Your task to perform on an android device: uninstall "Airtel Thanks" Image 0: 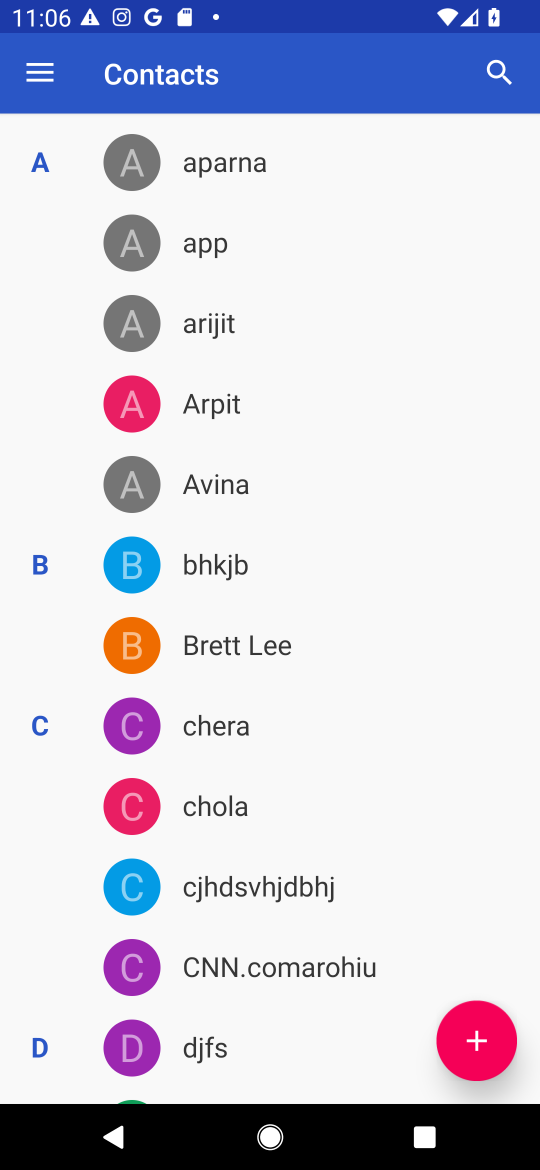
Step 0: press home button
Your task to perform on an android device: uninstall "Airtel Thanks" Image 1: 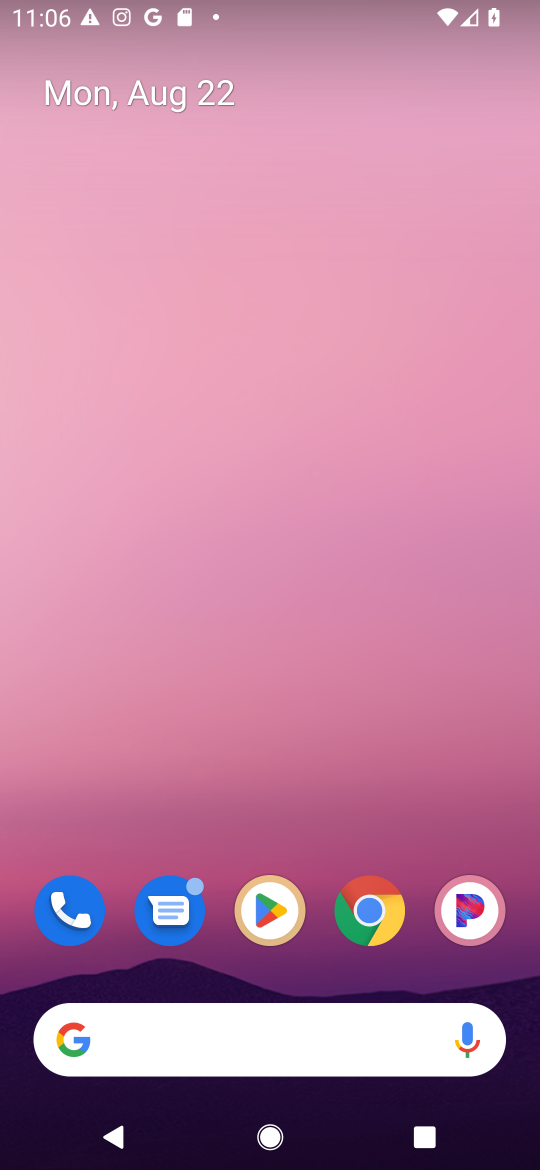
Step 1: click (270, 928)
Your task to perform on an android device: uninstall "Airtel Thanks" Image 2: 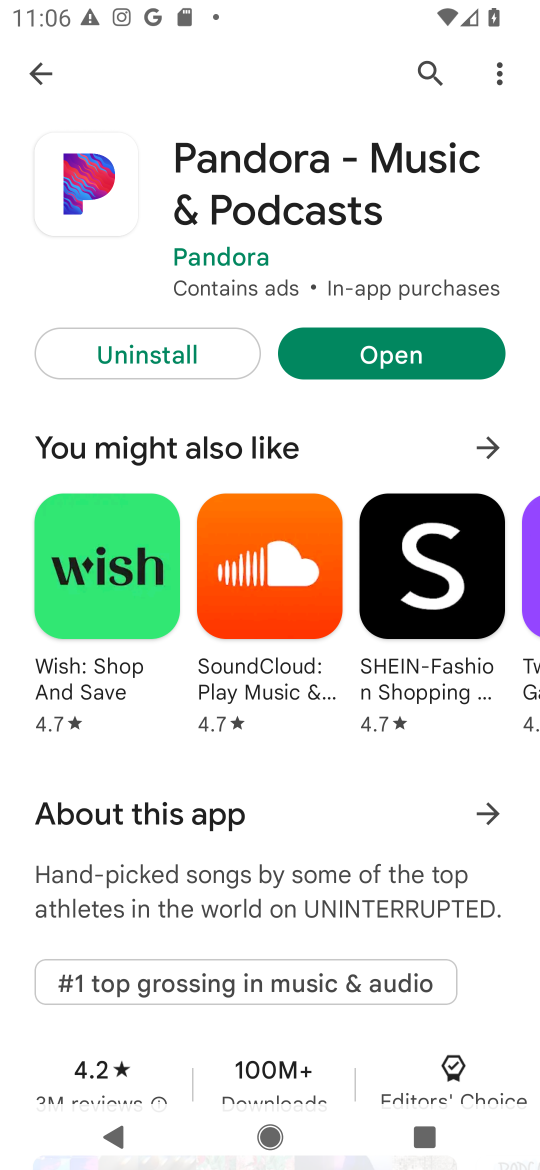
Step 2: click (433, 69)
Your task to perform on an android device: uninstall "Airtel Thanks" Image 3: 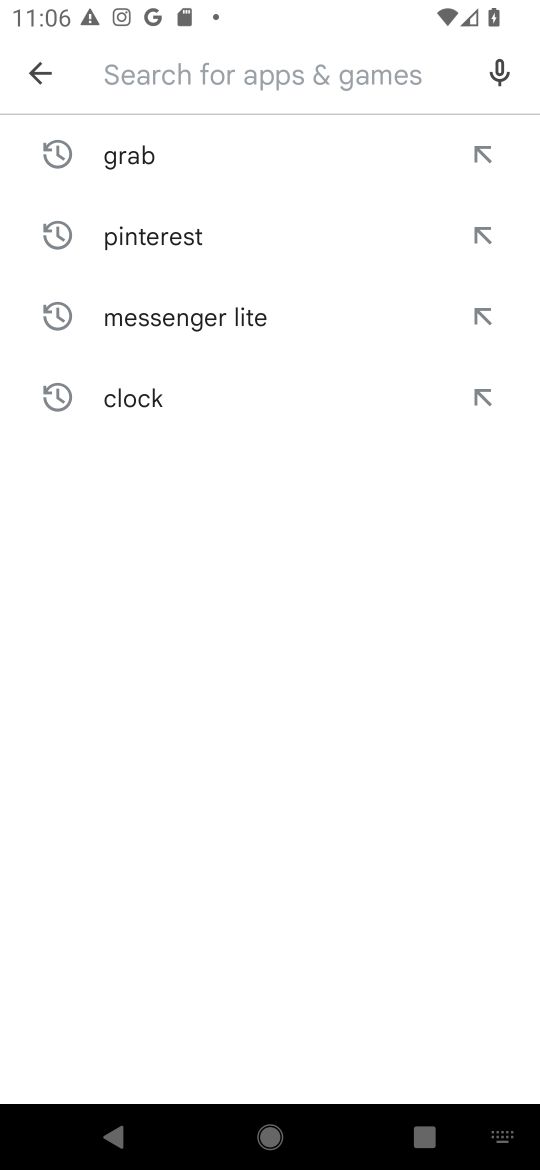
Step 3: type "Airtel Thanks"
Your task to perform on an android device: uninstall "Airtel Thanks" Image 4: 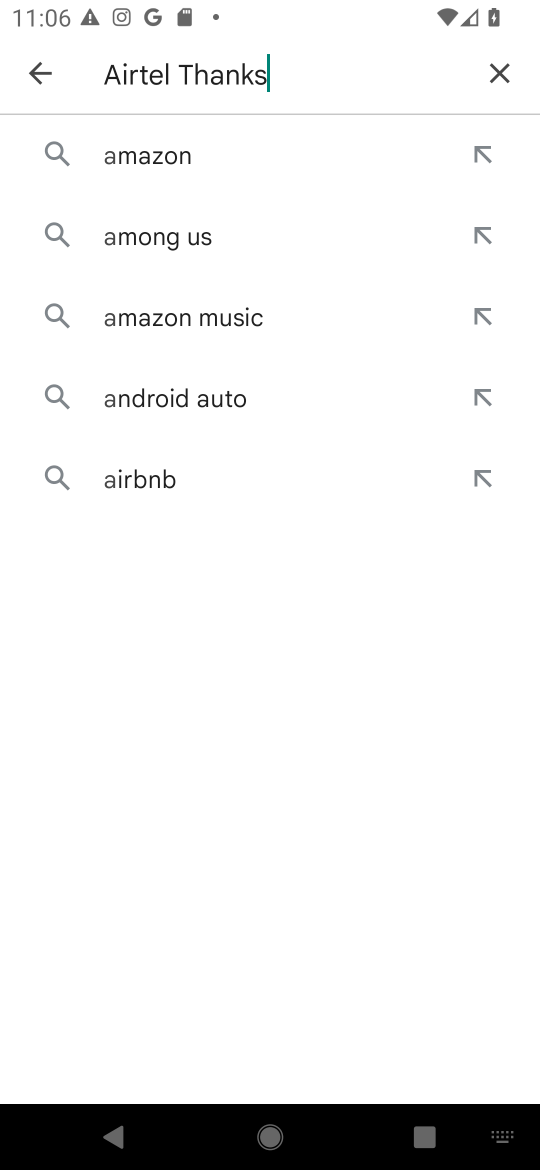
Step 4: type ""
Your task to perform on an android device: uninstall "Airtel Thanks" Image 5: 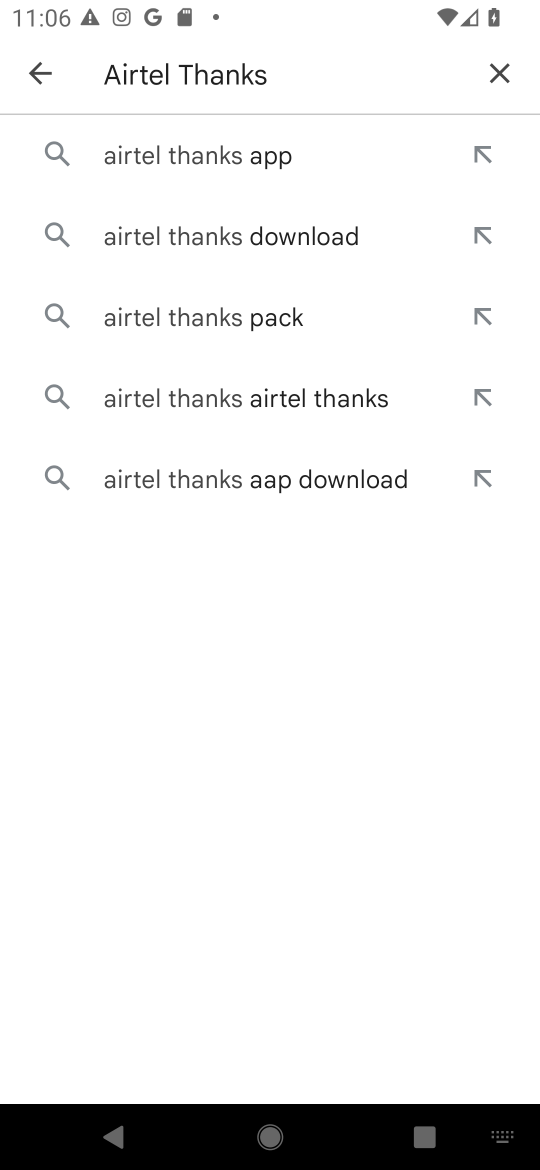
Step 5: click (148, 157)
Your task to perform on an android device: uninstall "Airtel Thanks" Image 6: 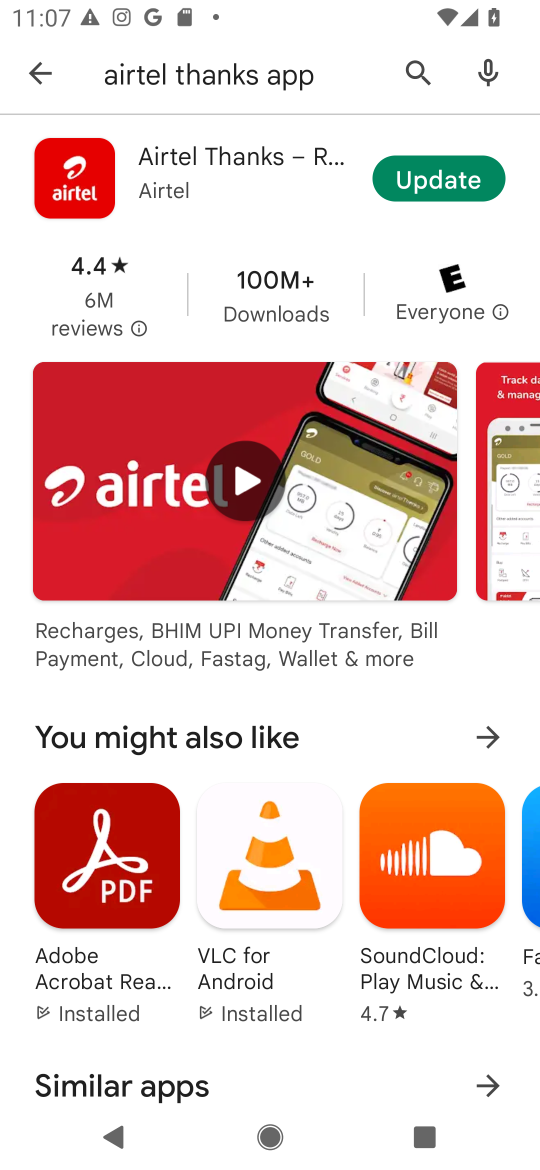
Step 6: click (193, 187)
Your task to perform on an android device: uninstall "Airtel Thanks" Image 7: 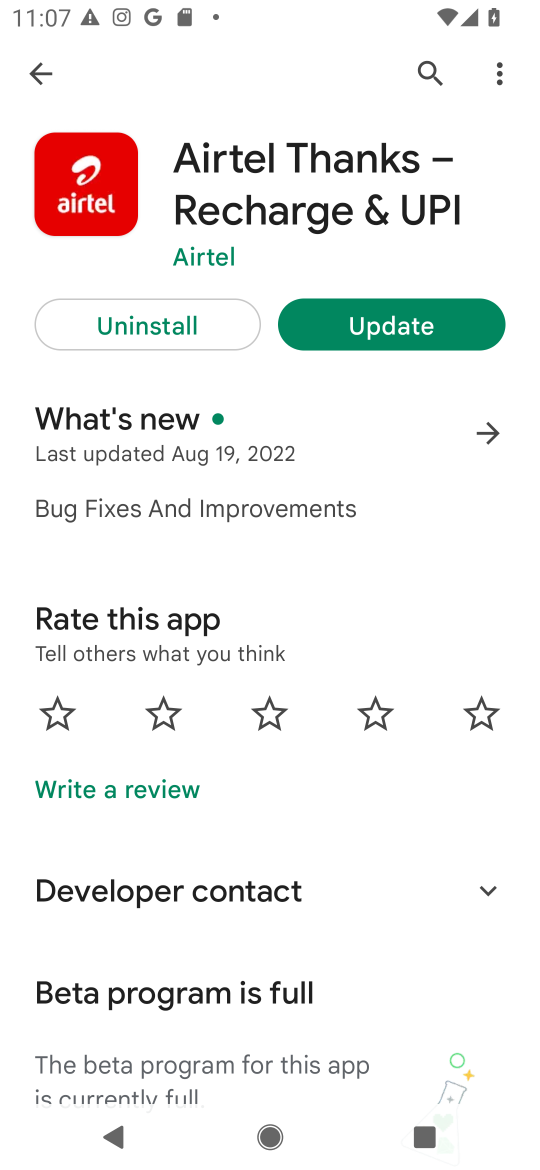
Step 7: click (173, 345)
Your task to perform on an android device: uninstall "Airtel Thanks" Image 8: 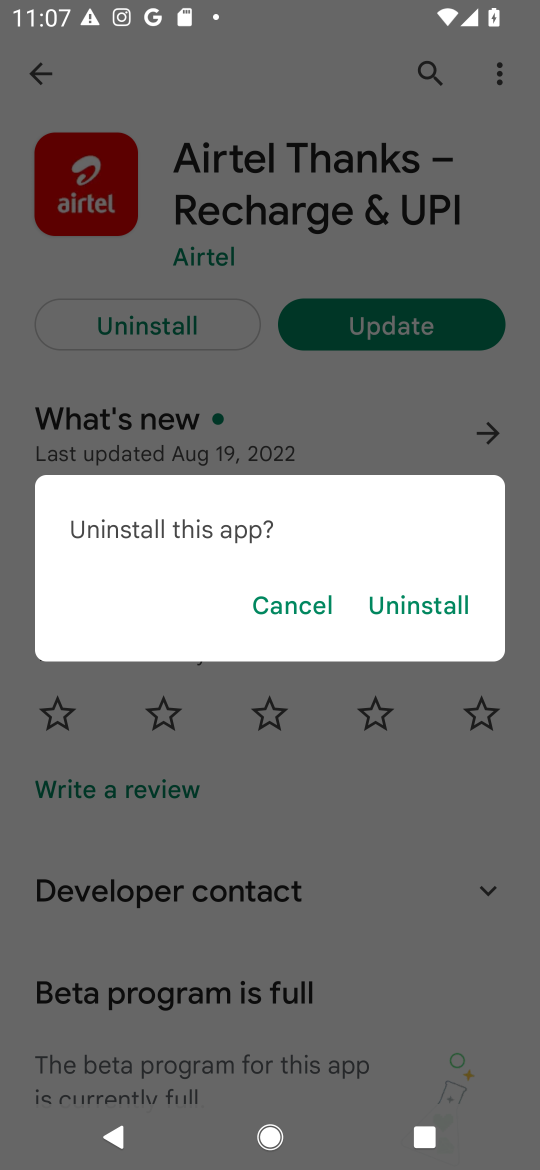
Step 8: click (403, 604)
Your task to perform on an android device: uninstall "Airtel Thanks" Image 9: 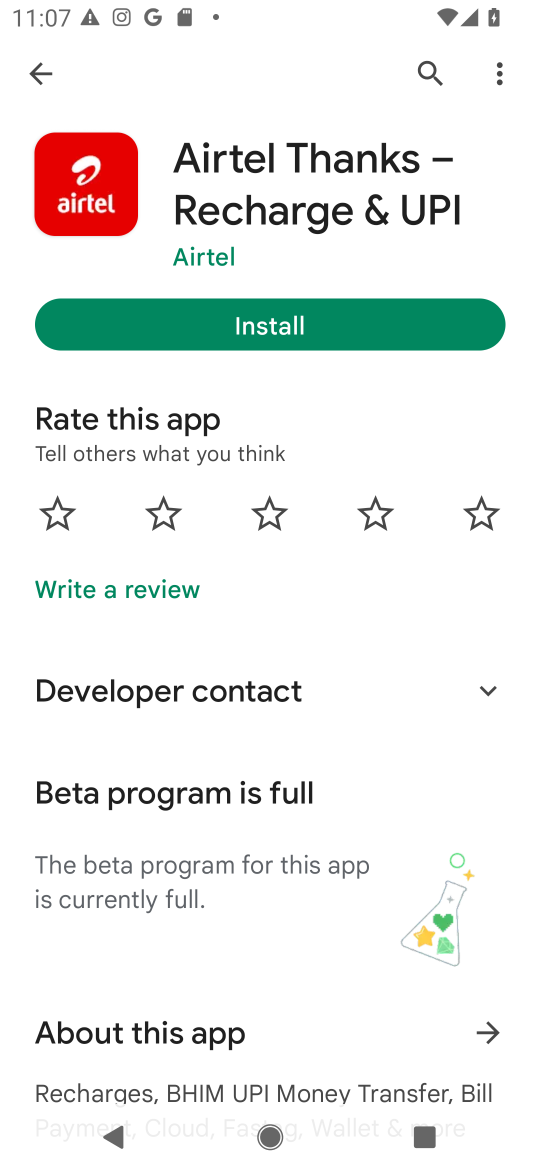
Step 9: task complete